Your task to perform on an android device: Search for pizza restaurants on Maps Image 0: 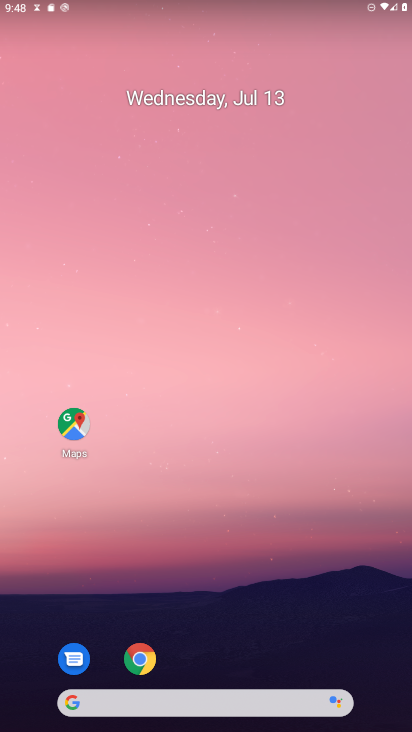
Step 0: click (68, 430)
Your task to perform on an android device: Search for pizza restaurants on Maps Image 1: 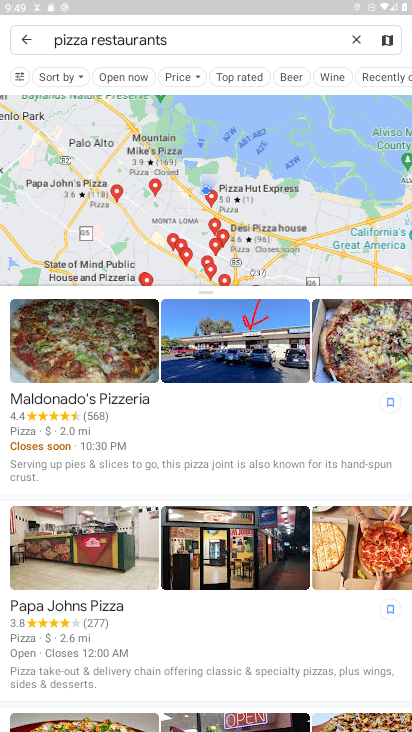
Step 1: task complete